Your task to perform on an android device: open chrome privacy settings Image 0: 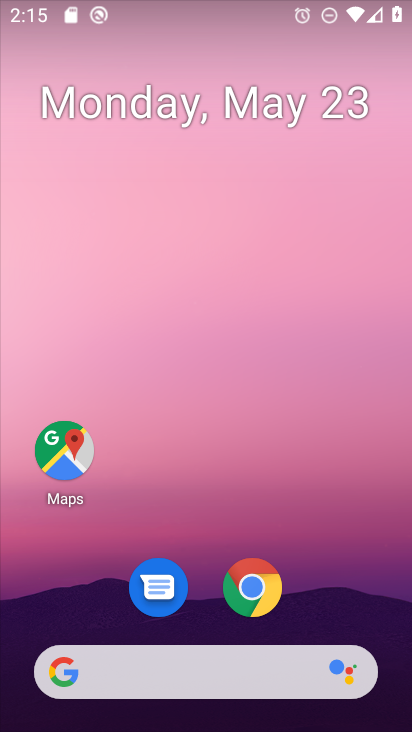
Step 0: click (267, 592)
Your task to perform on an android device: open chrome privacy settings Image 1: 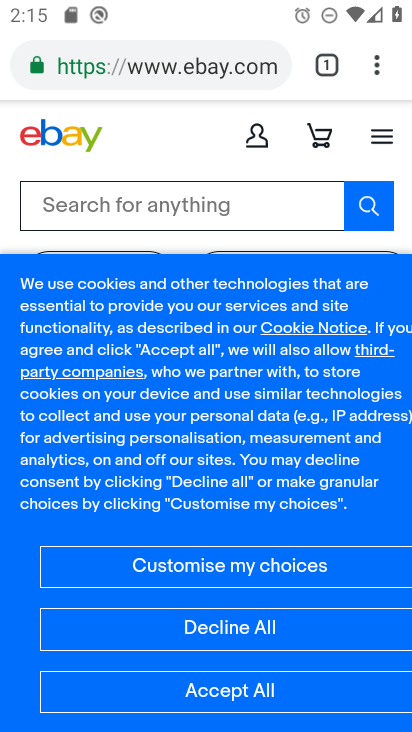
Step 1: click (367, 84)
Your task to perform on an android device: open chrome privacy settings Image 2: 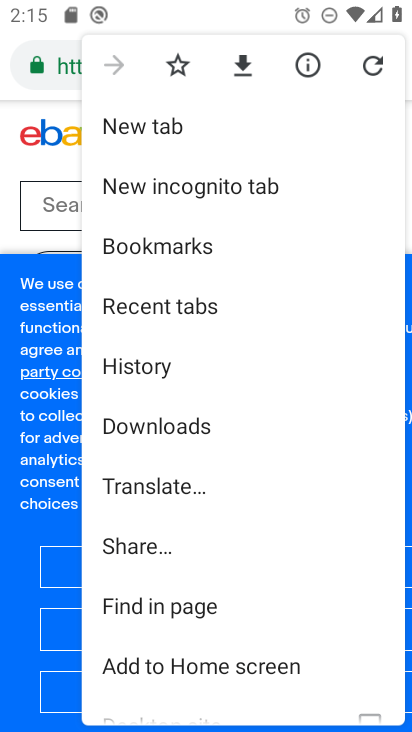
Step 2: drag from (191, 667) to (183, 449)
Your task to perform on an android device: open chrome privacy settings Image 3: 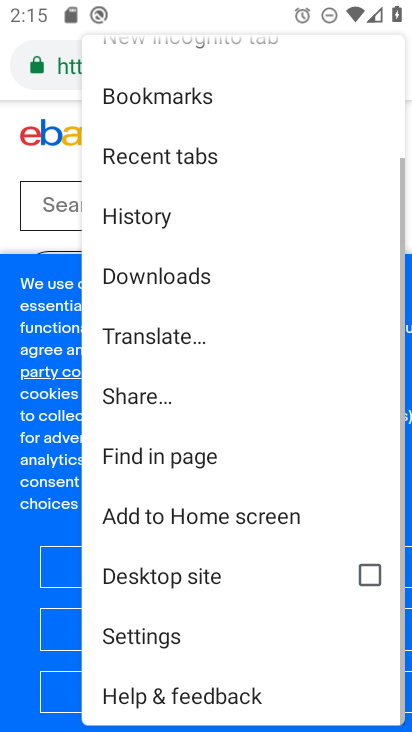
Step 3: click (158, 616)
Your task to perform on an android device: open chrome privacy settings Image 4: 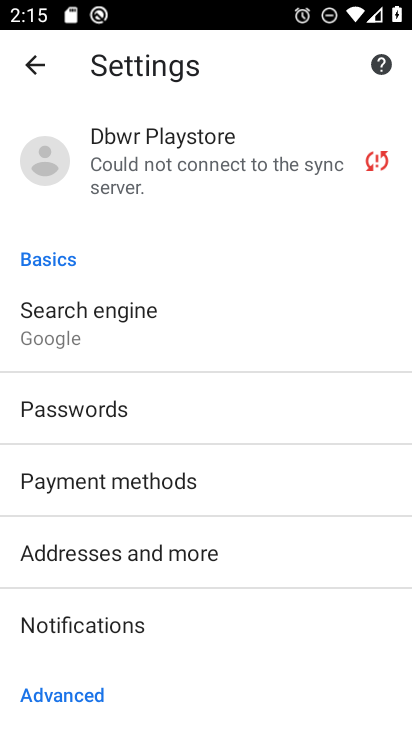
Step 4: drag from (148, 649) to (148, 466)
Your task to perform on an android device: open chrome privacy settings Image 5: 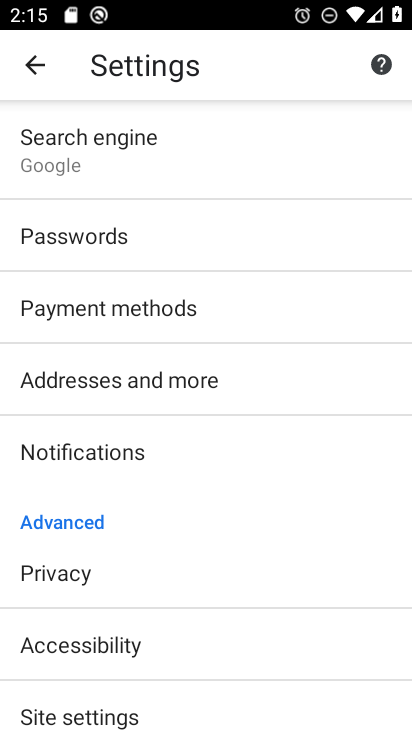
Step 5: click (122, 560)
Your task to perform on an android device: open chrome privacy settings Image 6: 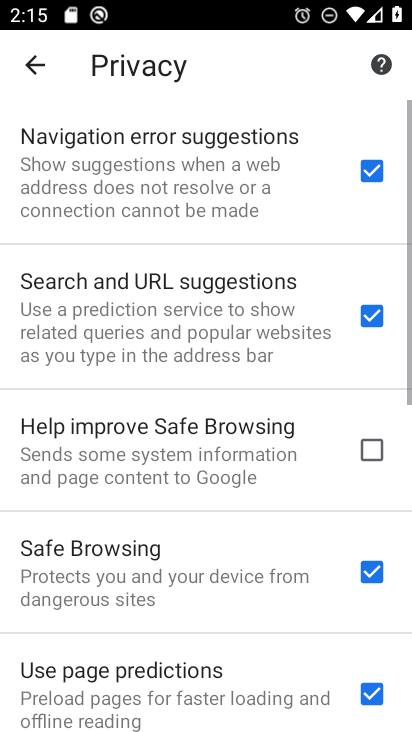
Step 6: task complete